Your task to perform on an android device: Clear the shopping cart on bestbuy. Search for rayovac triple a on bestbuy, select the first entry, add it to the cart, then select checkout. Image 0: 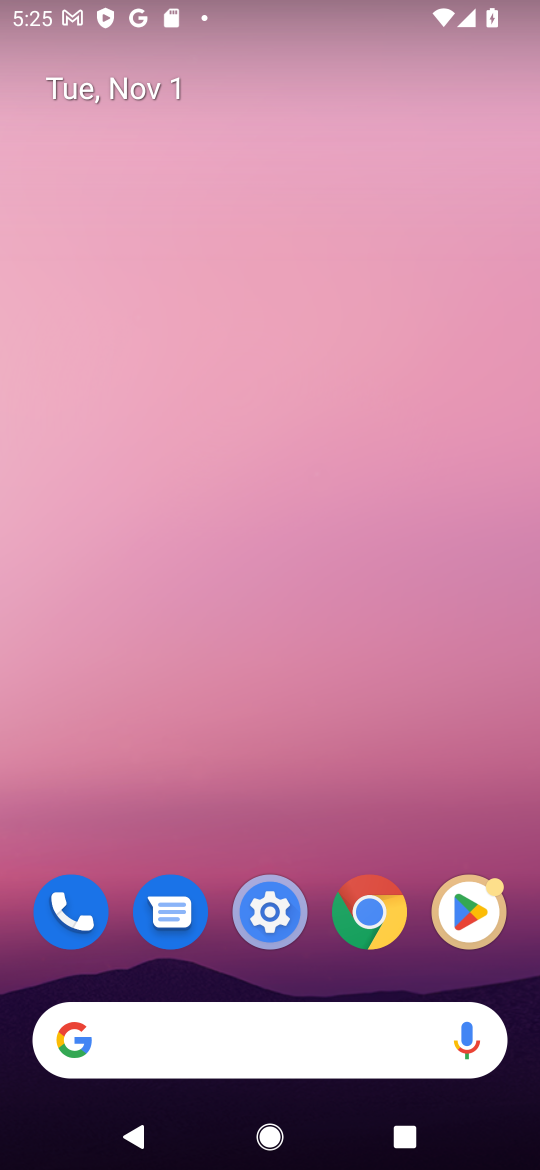
Step 0: click (72, 1041)
Your task to perform on an android device: Clear the shopping cart on bestbuy. Search for rayovac triple a on bestbuy, select the first entry, add it to the cart, then select checkout. Image 1: 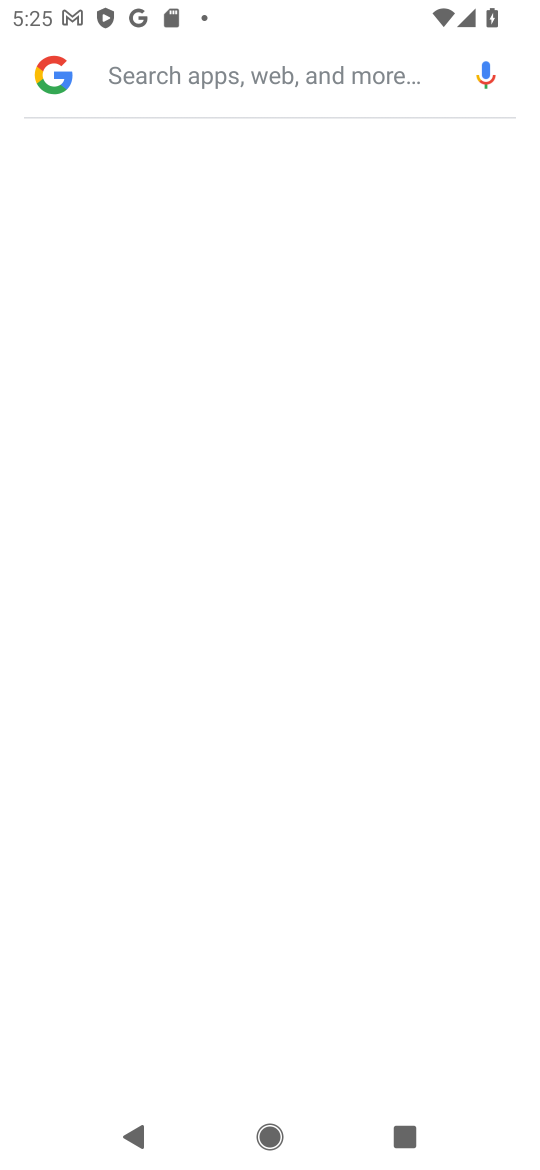
Step 1: click (72, 1041)
Your task to perform on an android device: Clear the shopping cart on bestbuy. Search for rayovac triple a on bestbuy, select the first entry, add it to the cart, then select checkout. Image 2: 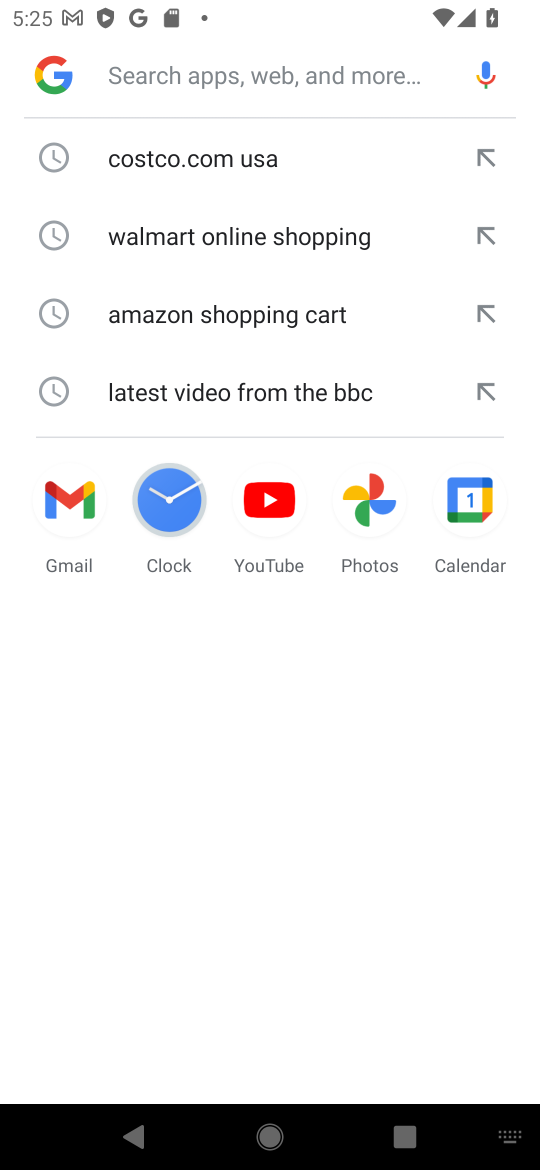
Step 2: type "bestbuy"
Your task to perform on an android device: Clear the shopping cart on bestbuy. Search for rayovac triple a on bestbuy, select the first entry, add it to the cart, then select checkout. Image 3: 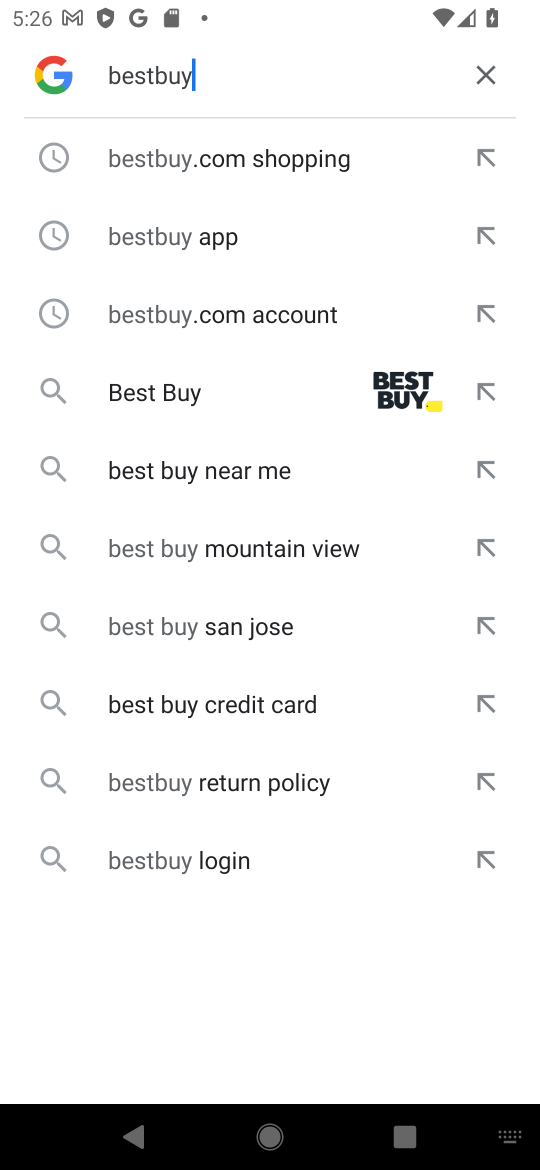
Step 3: click (166, 169)
Your task to perform on an android device: Clear the shopping cart on bestbuy. Search for rayovac triple a on bestbuy, select the first entry, add it to the cart, then select checkout. Image 4: 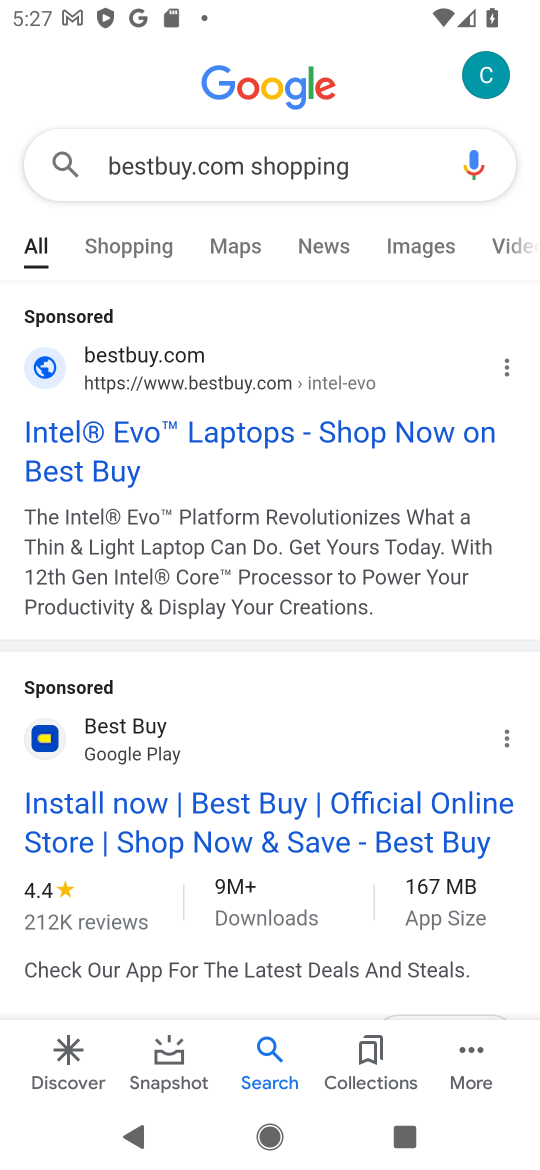
Step 4: click (158, 438)
Your task to perform on an android device: Clear the shopping cart on bestbuy. Search for rayovac triple a on bestbuy, select the first entry, add it to the cart, then select checkout. Image 5: 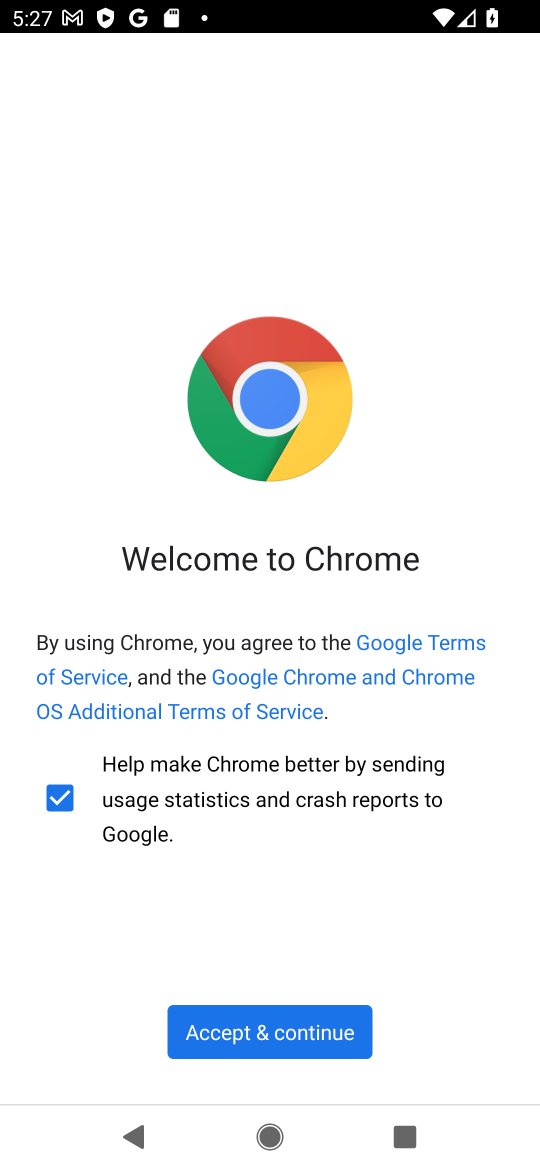
Step 5: click (301, 1026)
Your task to perform on an android device: Clear the shopping cart on bestbuy. Search for rayovac triple a on bestbuy, select the first entry, add it to the cart, then select checkout. Image 6: 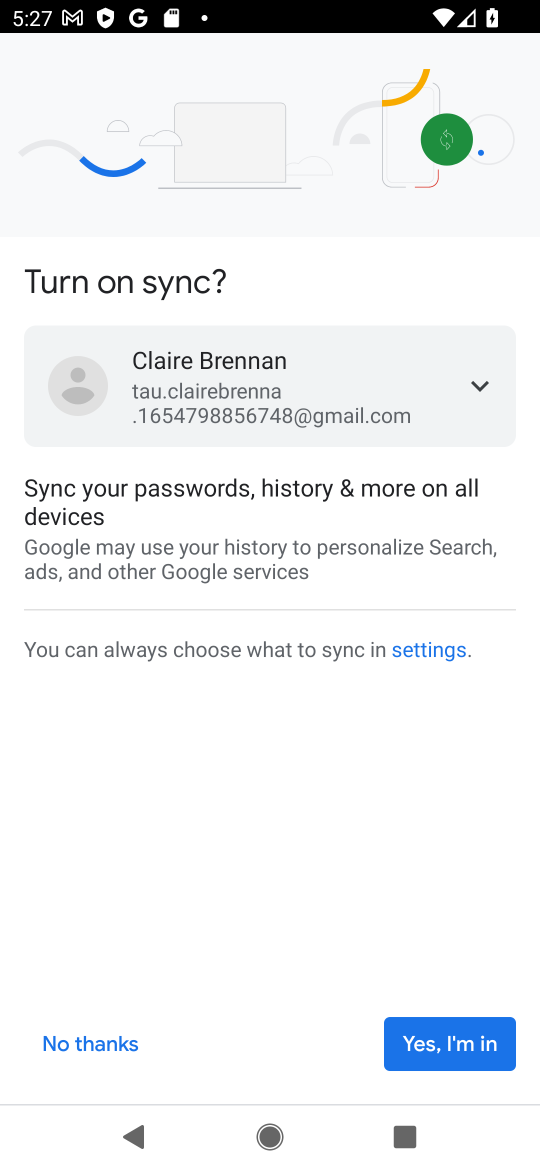
Step 6: click (413, 1037)
Your task to perform on an android device: Clear the shopping cart on bestbuy. Search for rayovac triple a on bestbuy, select the first entry, add it to the cart, then select checkout. Image 7: 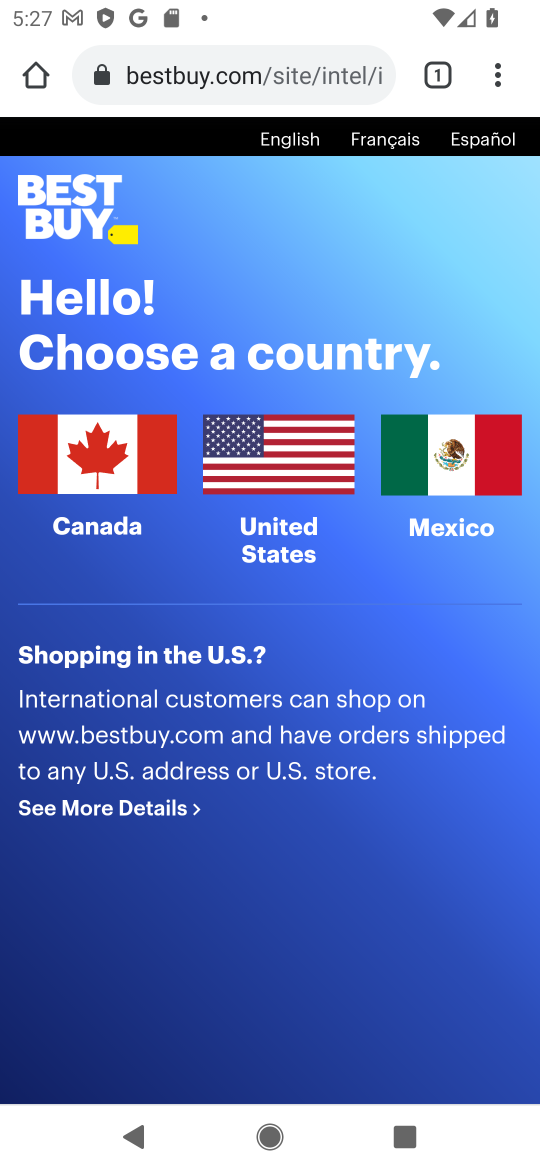
Step 7: click (278, 451)
Your task to perform on an android device: Clear the shopping cart on bestbuy. Search for rayovac triple a on bestbuy, select the first entry, add it to the cart, then select checkout. Image 8: 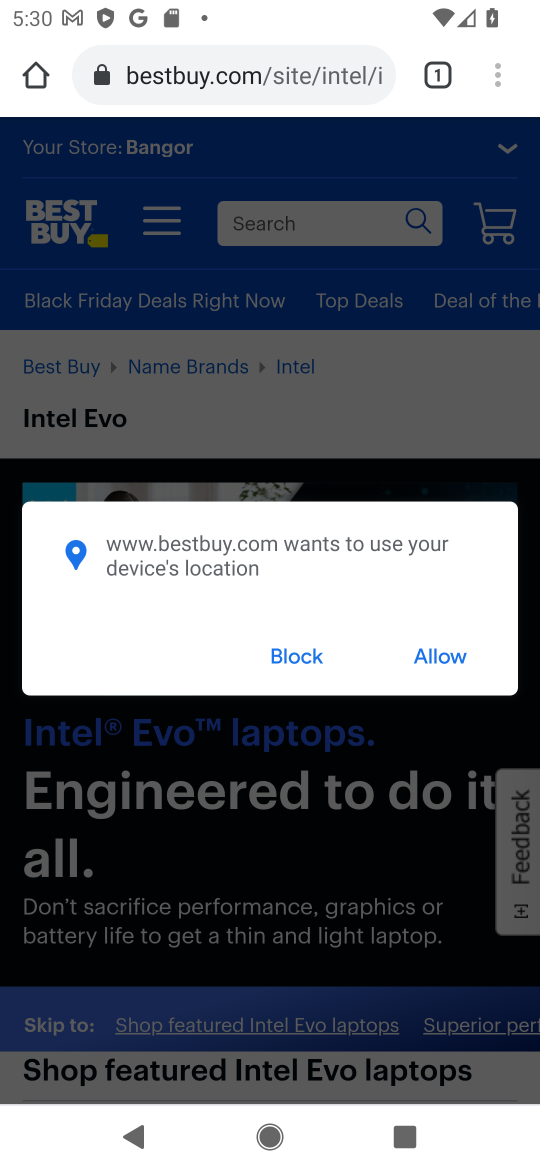
Step 8: click (288, 660)
Your task to perform on an android device: Clear the shopping cart on bestbuy. Search for rayovac triple a on bestbuy, select the first entry, add it to the cart, then select checkout. Image 9: 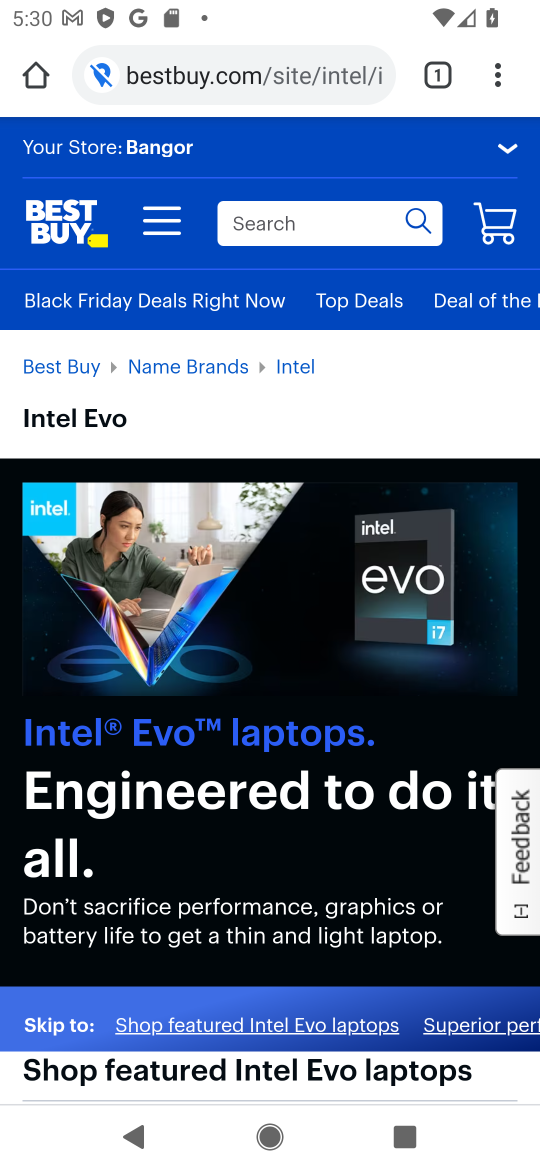
Step 9: task complete